Your task to perform on an android device: Open Chrome and go to settings Image 0: 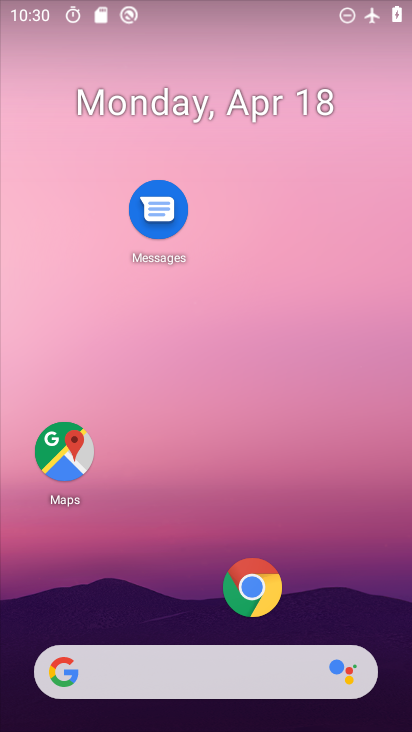
Step 0: click (253, 575)
Your task to perform on an android device: Open Chrome and go to settings Image 1: 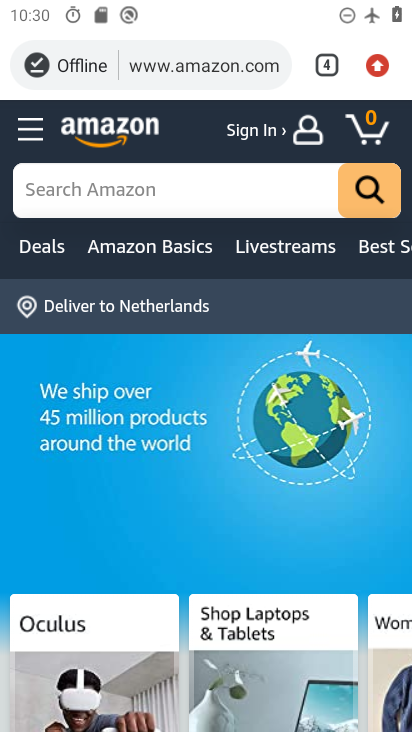
Step 1: click (378, 72)
Your task to perform on an android device: Open Chrome and go to settings Image 2: 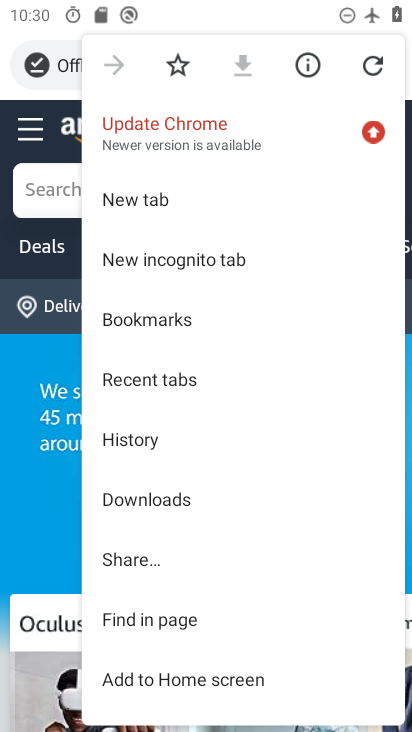
Step 2: drag from (157, 607) to (232, 274)
Your task to perform on an android device: Open Chrome and go to settings Image 3: 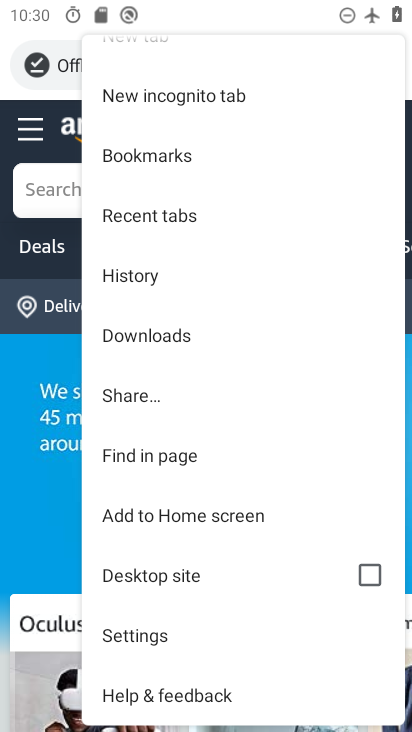
Step 3: click (126, 632)
Your task to perform on an android device: Open Chrome and go to settings Image 4: 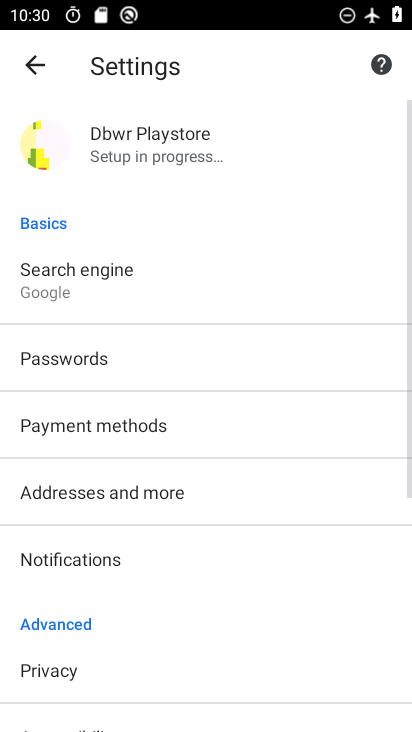
Step 4: task complete